Your task to perform on an android device: open app "McDonald's" Image 0: 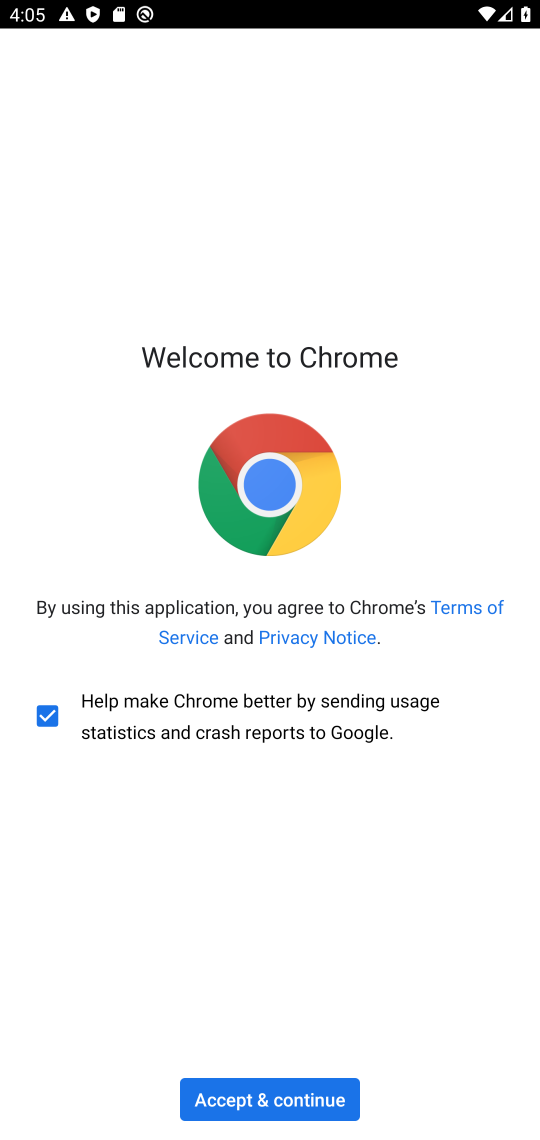
Step 0: press home button
Your task to perform on an android device: open app "McDonald's" Image 1: 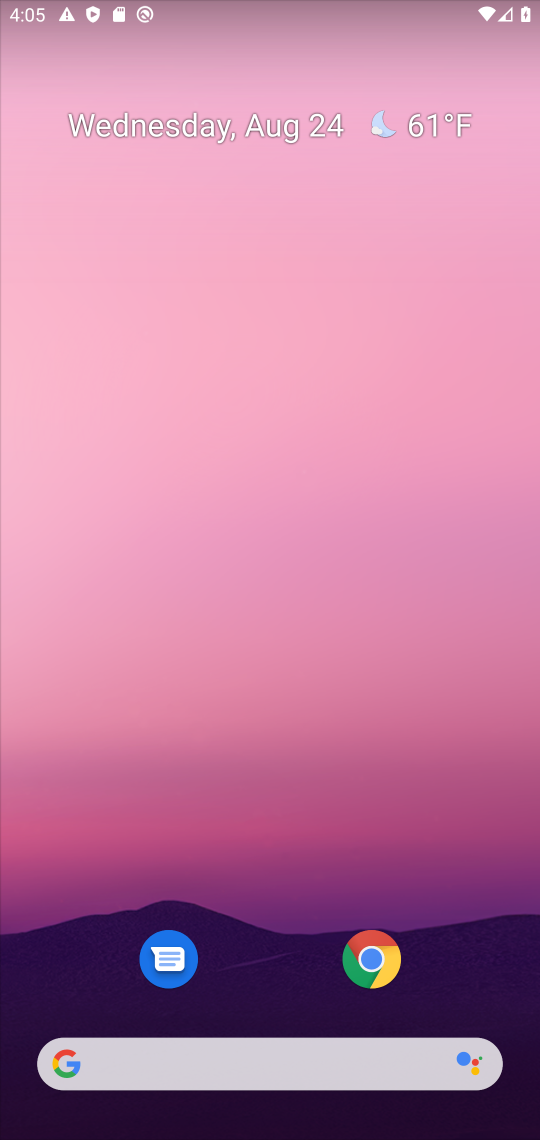
Step 1: drag from (257, 1009) to (227, 0)
Your task to perform on an android device: open app "McDonald's" Image 2: 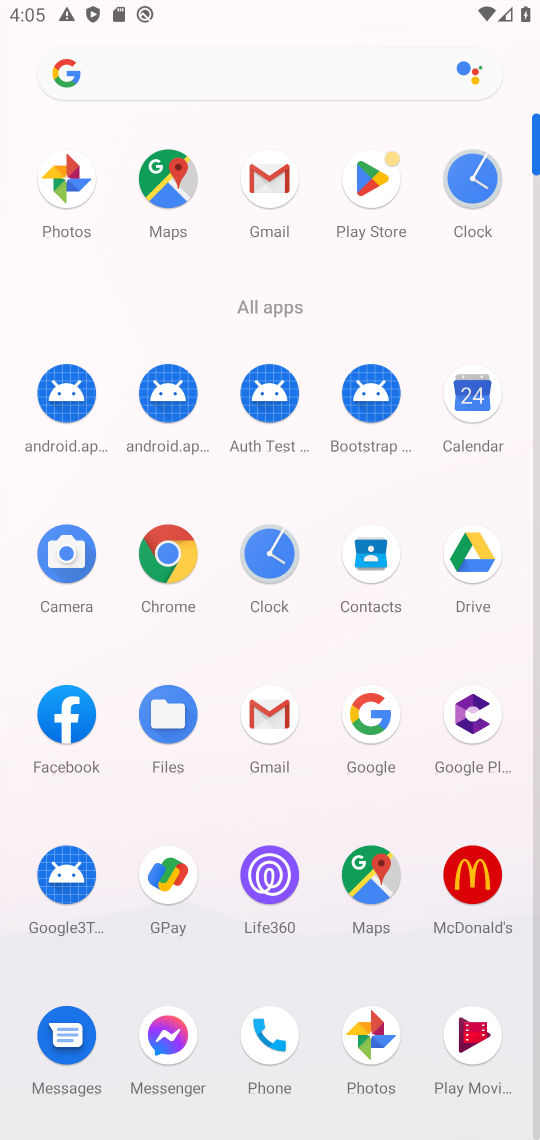
Step 2: click (387, 188)
Your task to perform on an android device: open app "McDonald's" Image 3: 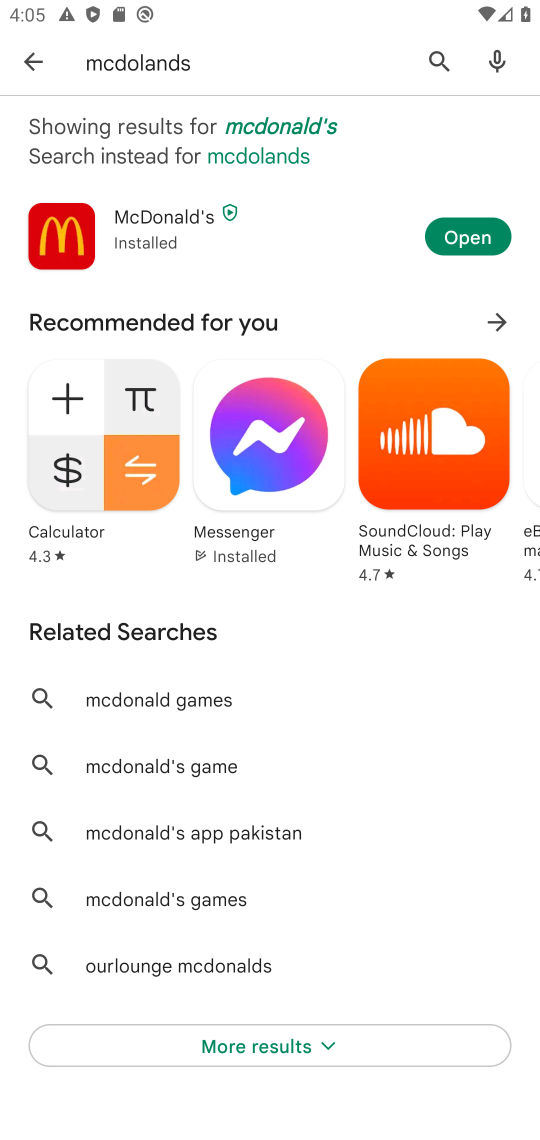
Step 3: click (443, 79)
Your task to perform on an android device: open app "McDonald's" Image 4: 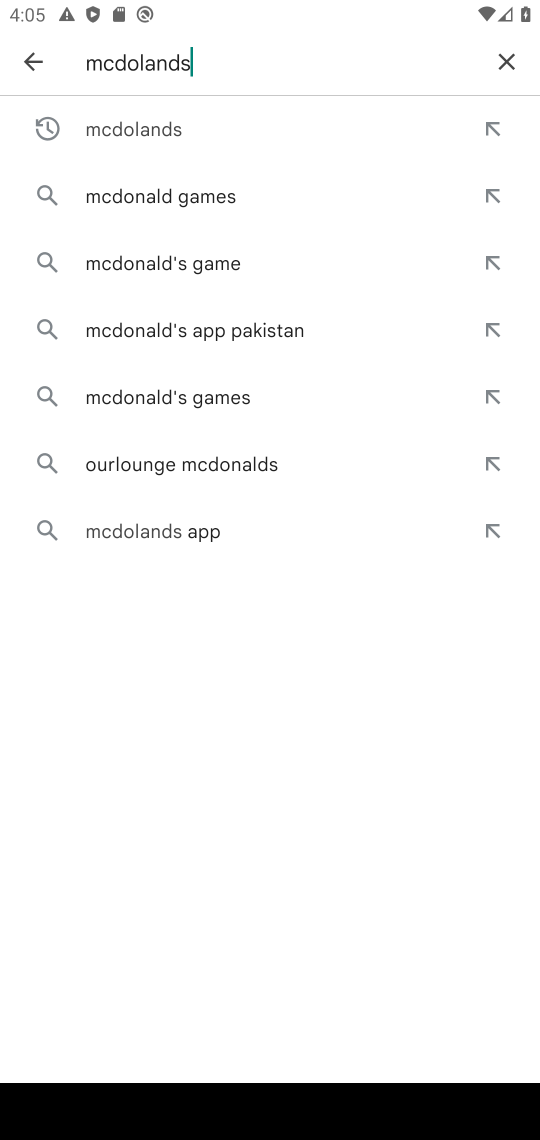
Step 4: click (503, 74)
Your task to perform on an android device: open app "McDonald's" Image 5: 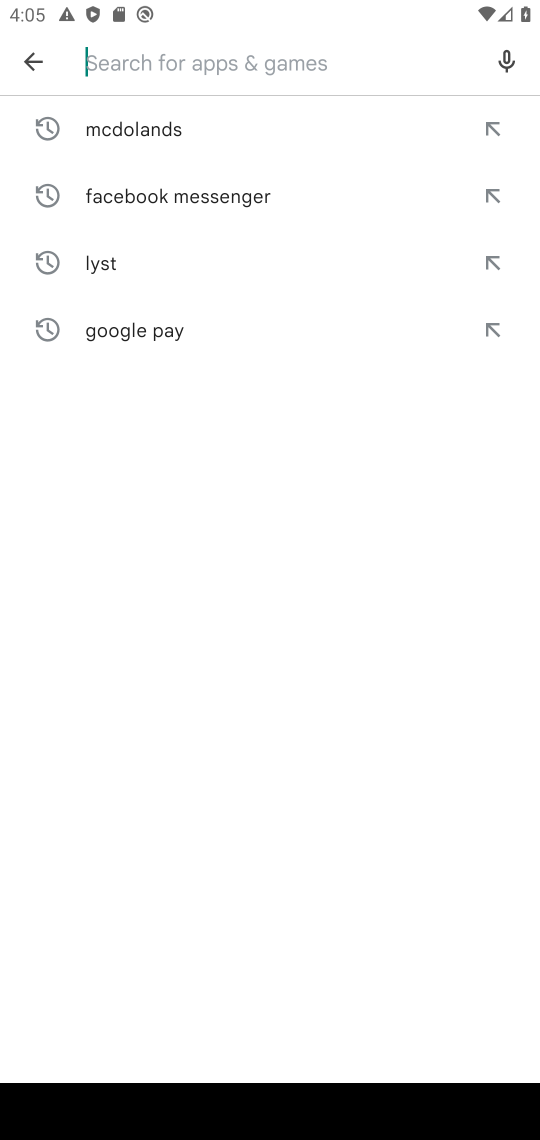
Step 5: type "mcdoland"
Your task to perform on an android device: open app "McDonald's" Image 6: 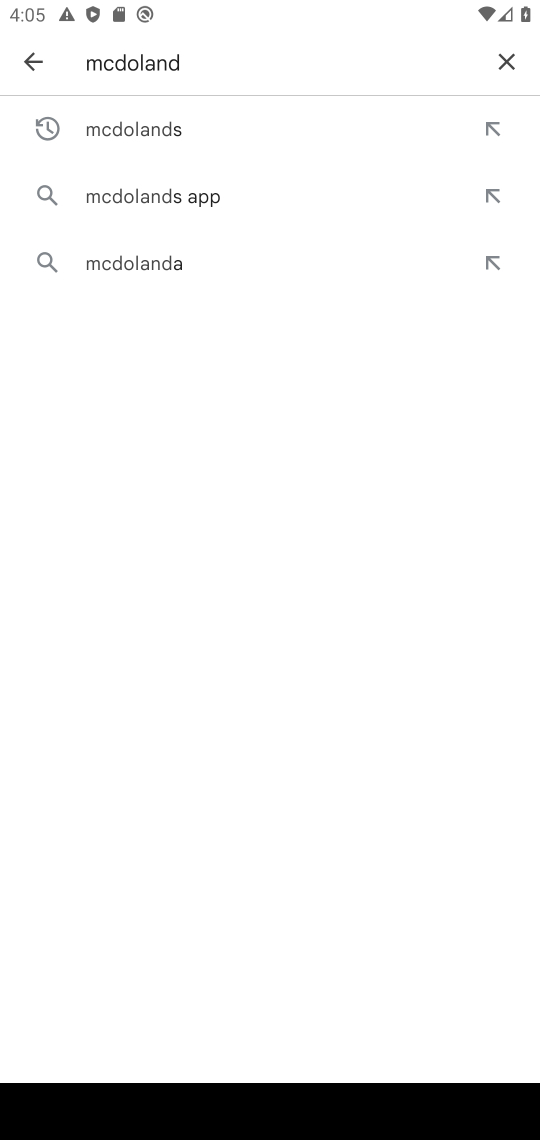
Step 6: click (318, 135)
Your task to perform on an android device: open app "McDonald's" Image 7: 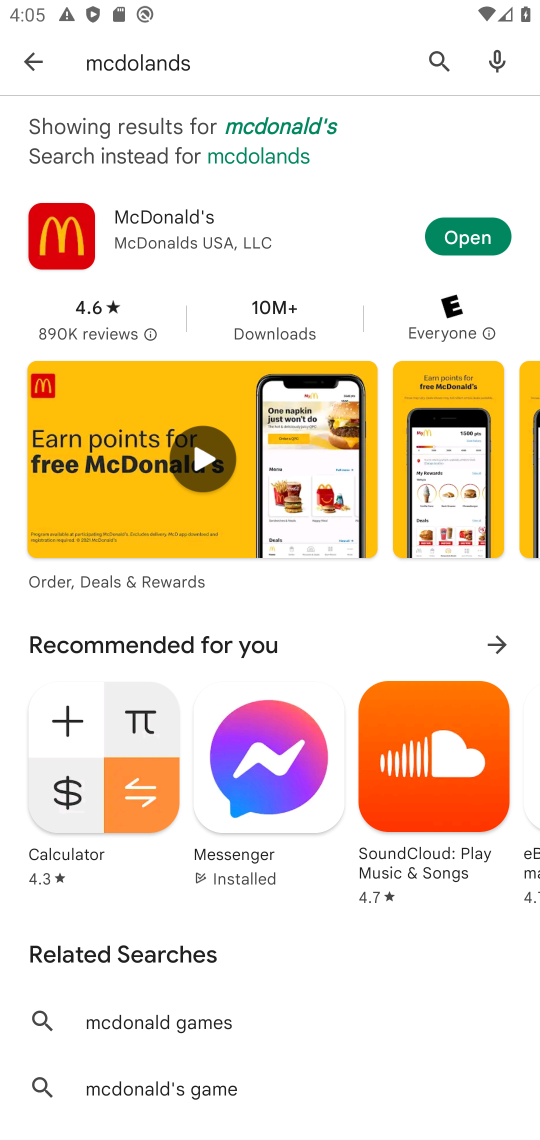
Step 7: click (489, 263)
Your task to perform on an android device: open app "McDonald's" Image 8: 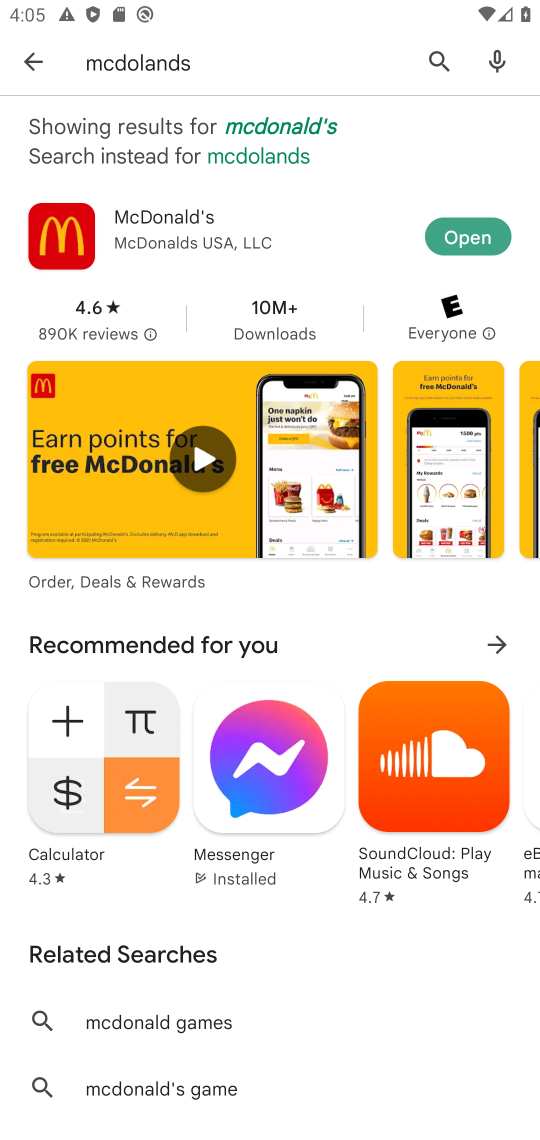
Step 8: click (480, 248)
Your task to perform on an android device: open app "McDonald's" Image 9: 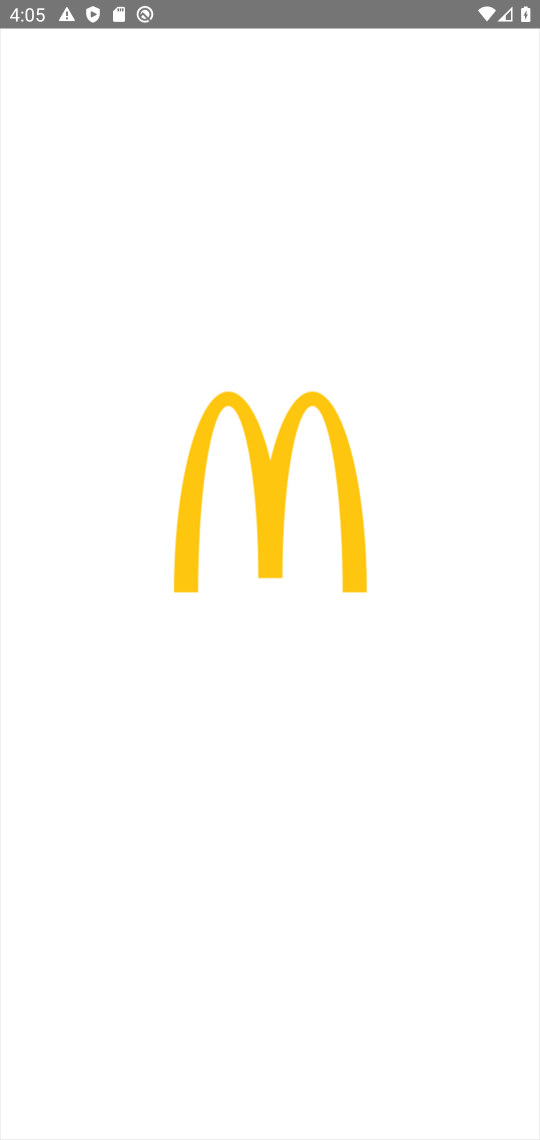
Step 9: task complete